Your task to perform on an android device: turn off smart reply in the gmail app Image 0: 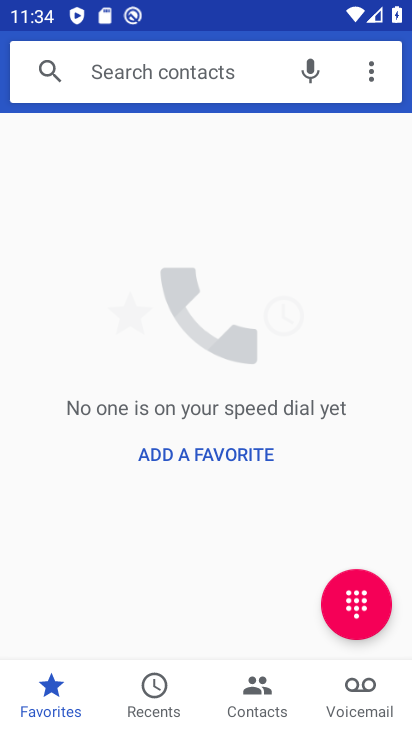
Step 0: press home button
Your task to perform on an android device: turn off smart reply in the gmail app Image 1: 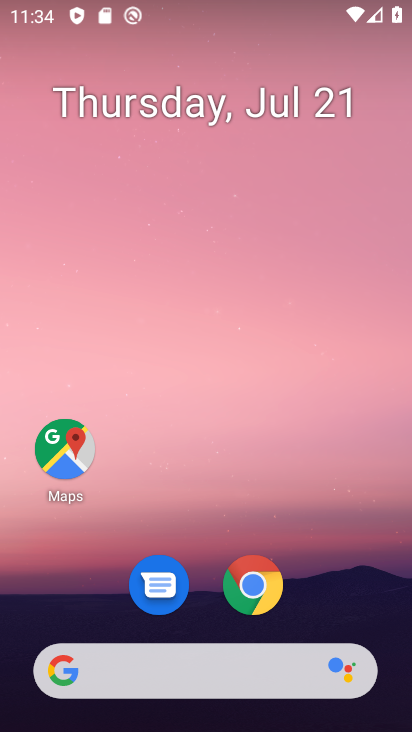
Step 1: drag from (196, 676) to (184, 73)
Your task to perform on an android device: turn off smart reply in the gmail app Image 2: 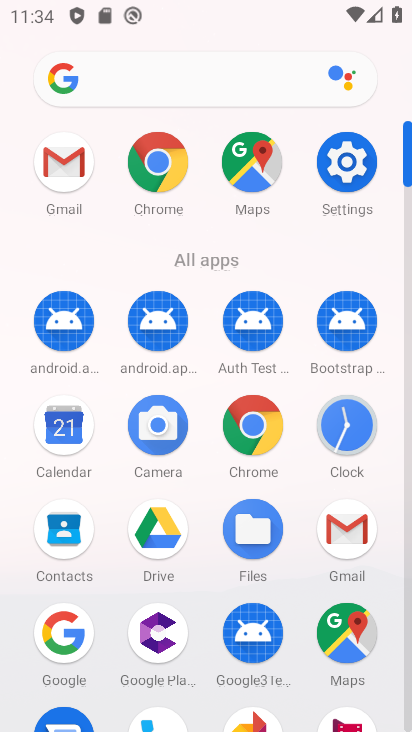
Step 2: click (59, 156)
Your task to perform on an android device: turn off smart reply in the gmail app Image 3: 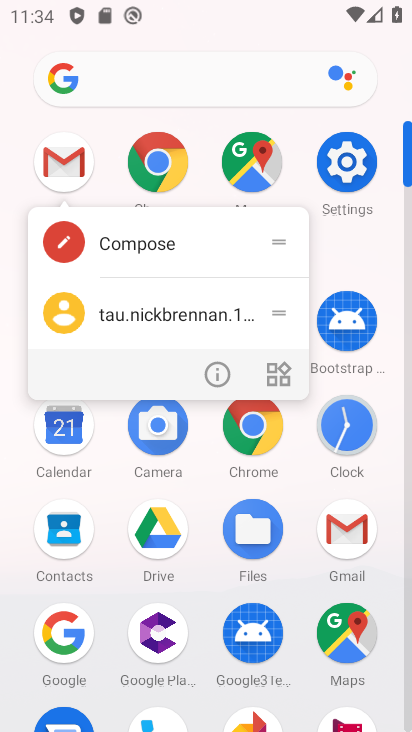
Step 3: click (64, 166)
Your task to perform on an android device: turn off smart reply in the gmail app Image 4: 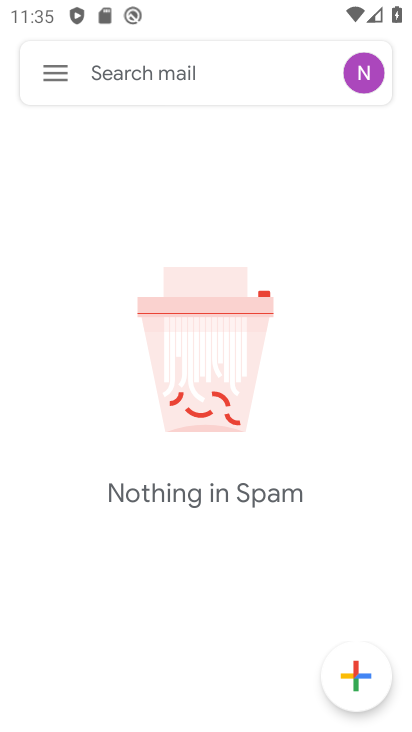
Step 4: click (51, 73)
Your task to perform on an android device: turn off smart reply in the gmail app Image 5: 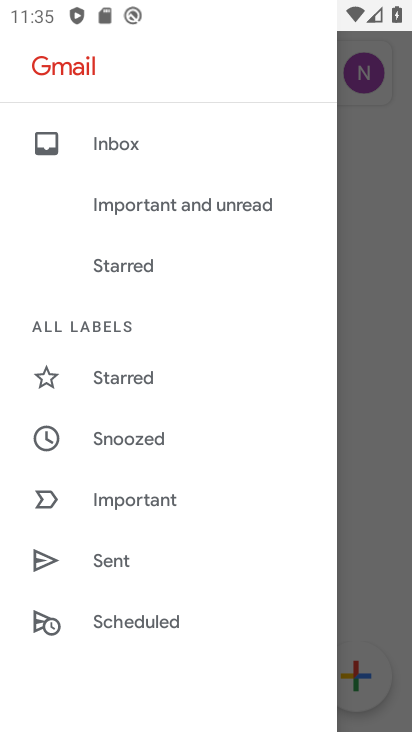
Step 5: drag from (222, 494) to (208, 95)
Your task to perform on an android device: turn off smart reply in the gmail app Image 6: 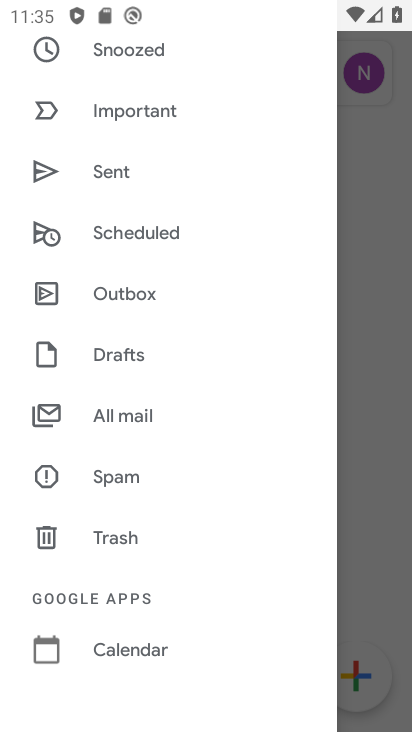
Step 6: drag from (203, 575) to (201, 68)
Your task to perform on an android device: turn off smart reply in the gmail app Image 7: 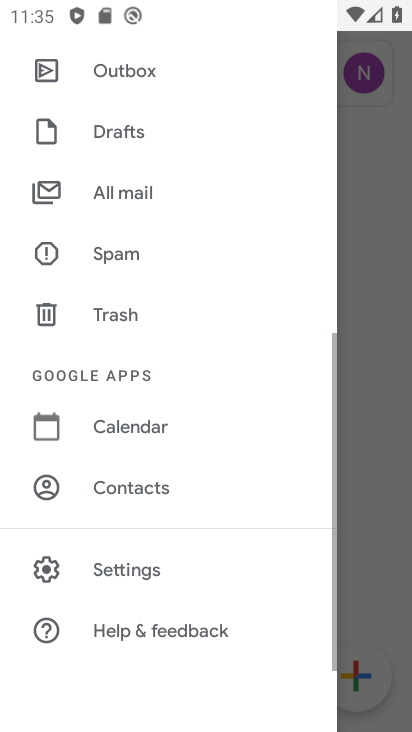
Step 7: click (153, 568)
Your task to perform on an android device: turn off smart reply in the gmail app Image 8: 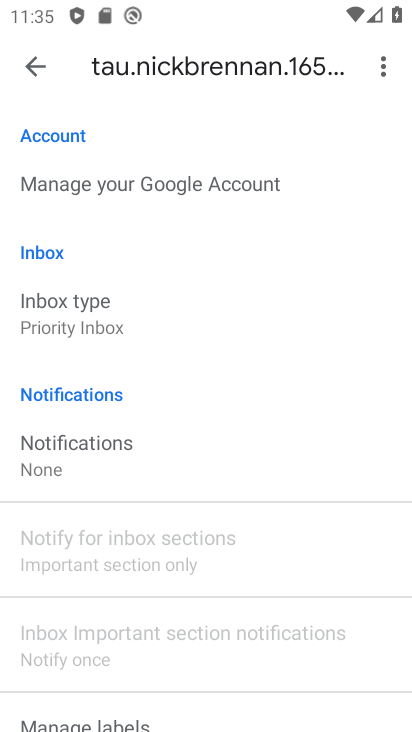
Step 8: drag from (221, 646) to (215, 92)
Your task to perform on an android device: turn off smart reply in the gmail app Image 9: 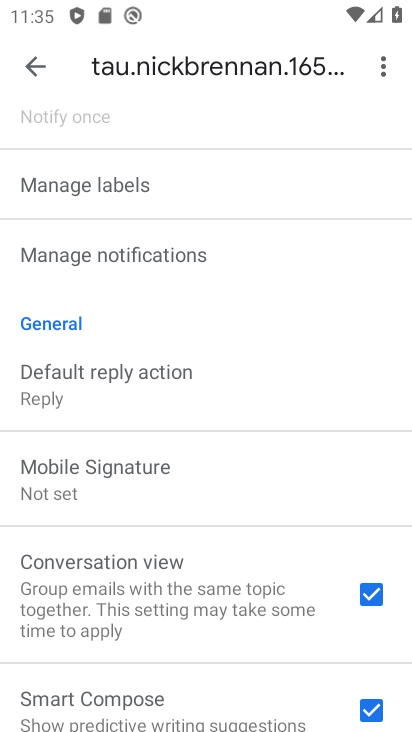
Step 9: drag from (251, 481) to (325, 151)
Your task to perform on an android device: turn off smart reply in the gmail app Image 10: 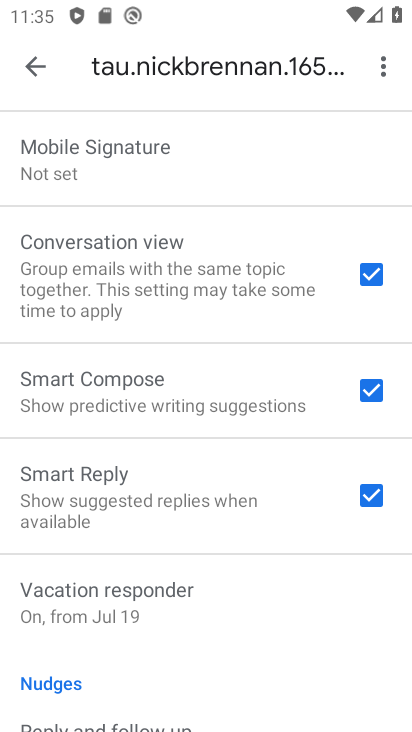
Step 10: click (363, 490)
Your task to perform on an android device: turn off smart reply in the gmail app Image 11: 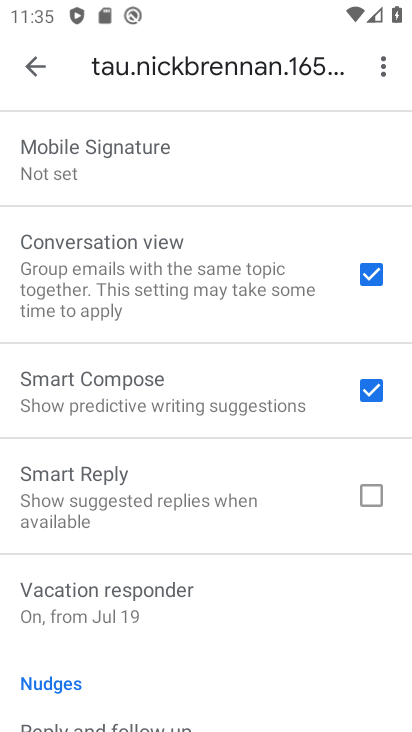
Step 11: task complete